Your task to perform on an android device: What's the weather going to be tomorrow? Image 0: 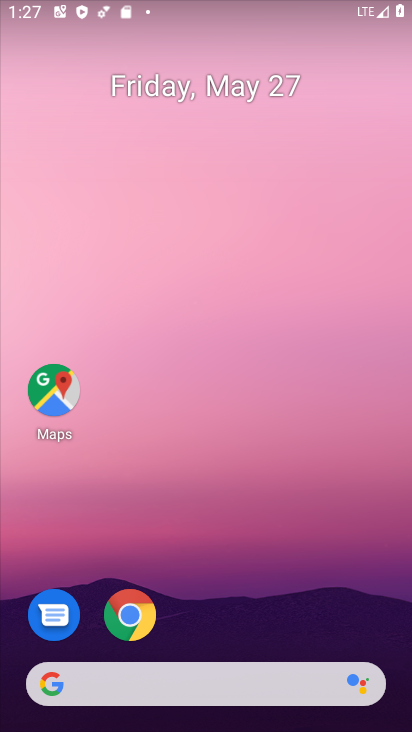
Step 0: drag from (196, 637) to (208, 199)
Your task to perform on an android device: What's the weather going to be tomorrow? Image 1: 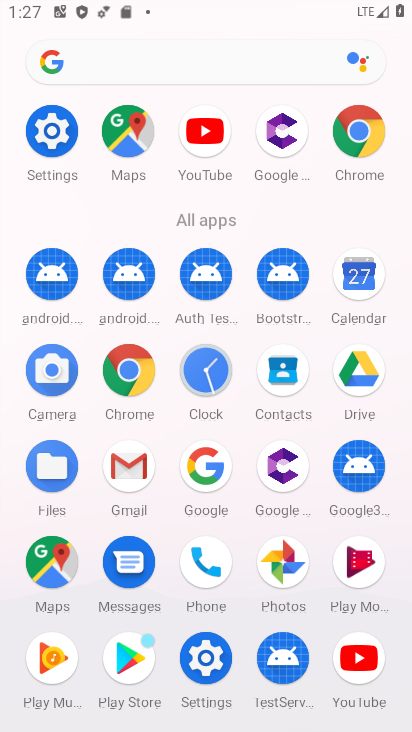
Step 1: click (193, 466)
Your task to perform on an android device: What's the weather going to be tomorrow? Image 2: 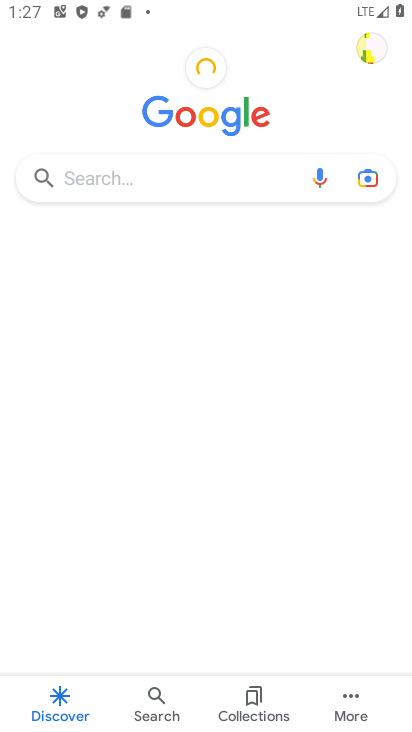
Step 2: click (175, 179)
Your task to perform on an android device: What's the weather going to be tomorrow? Image 3: 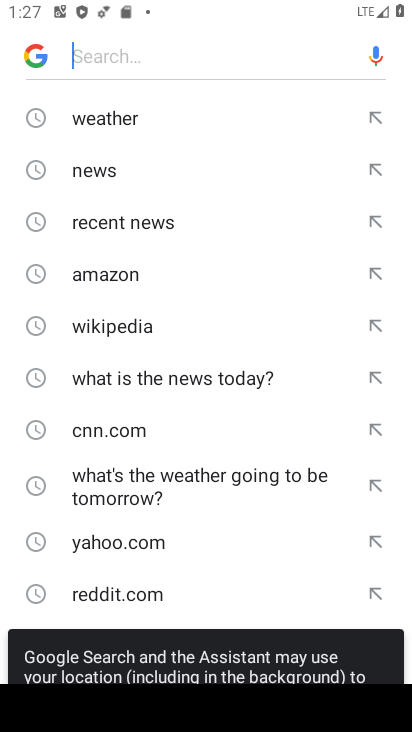
Step 3: click (97, 127)
Your task to perform on an android device: What's the weather going to be tomorrow? Image 4: 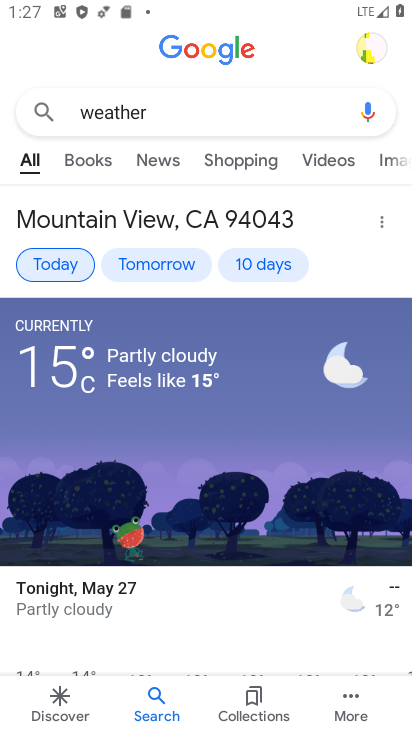
Step 4: task complete